Your task to perform on an android device: Search for logitech g pro on amazon, select the first entry, and add it to the cart. Image 0: 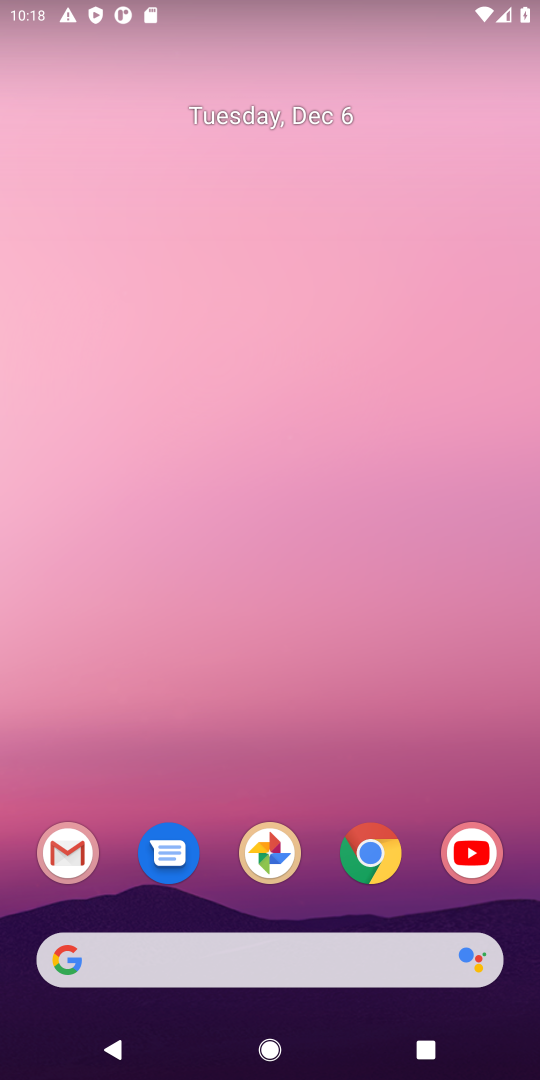
Step 0: task complete